Your task to perform on an android device: Check the weather Image 0: 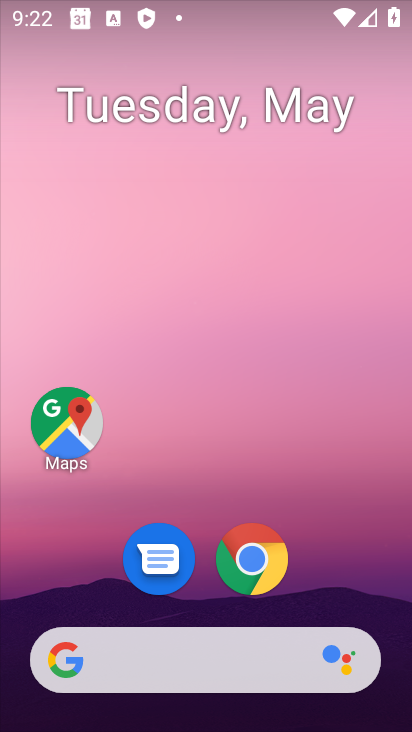
Step 0: drag from (14, 242) to (386, 135)
Your task to perform on an android device: Check the weather Image 1: 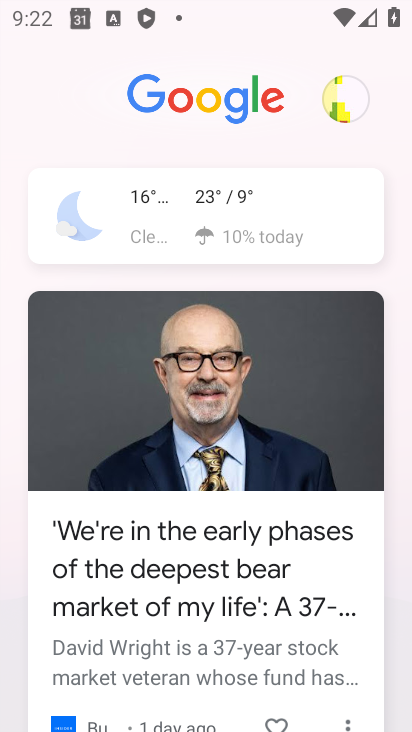
Step 1: click (96, 228)
Your task to perform on an android device: Check the weather Image 2: 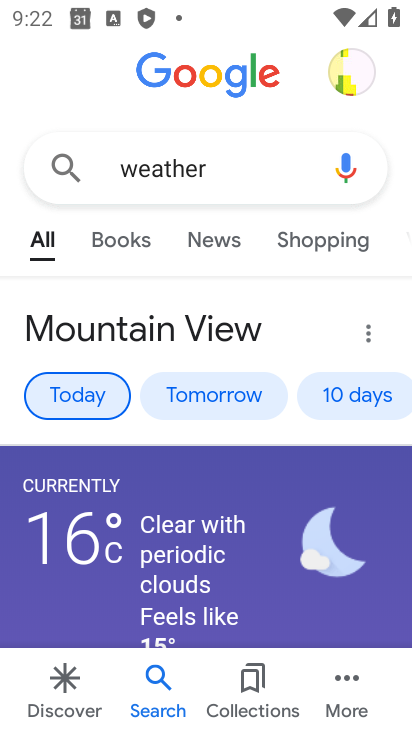
Step 2: task complete